Your task to perform on an android device: turn off data saver in the chrome app Image 0: 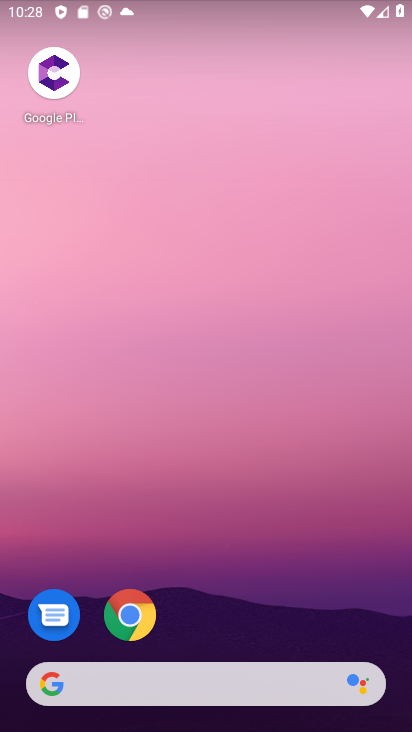
Step 0: click (131, 617)
Your task to perform on an android device: turn off data saver in the chrome app Image 1: 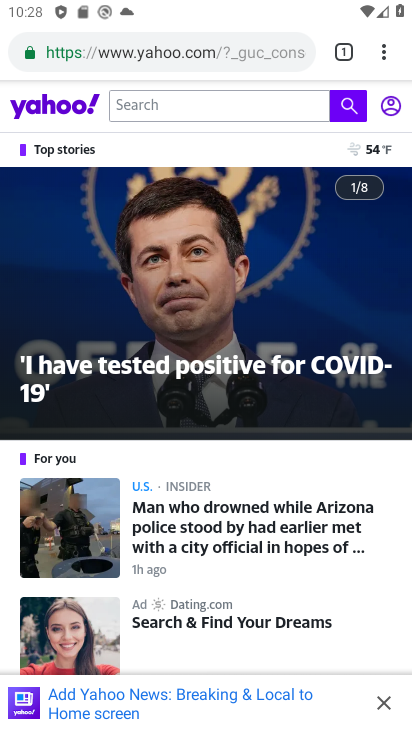
Step 1: drag from (376, 52) to (246, 648)
Your task to perform on an android device: turn off data saver in the chrome app Image 2: 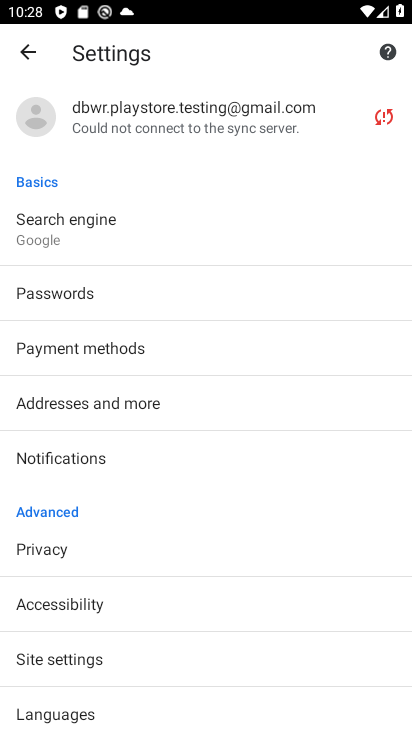
Step 2: drag from (86, 669) to (145, 335)
Your task to perform on an android device: turn off data saver in the chrome app Image 3: 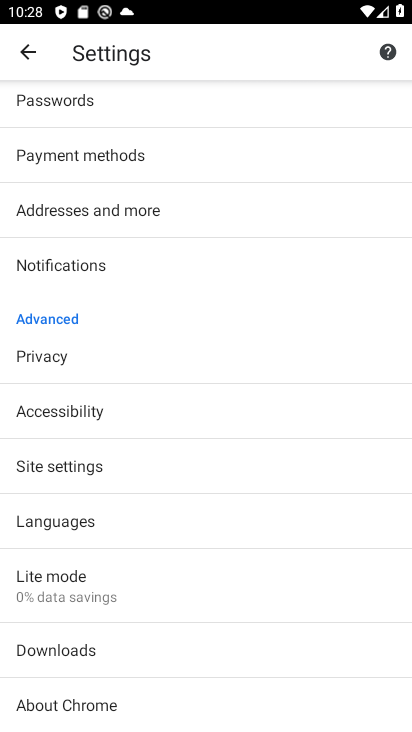
Step 3: click (108, 589)
Your task to perform on an android device: turn off data saver in the chrome app Image 4: 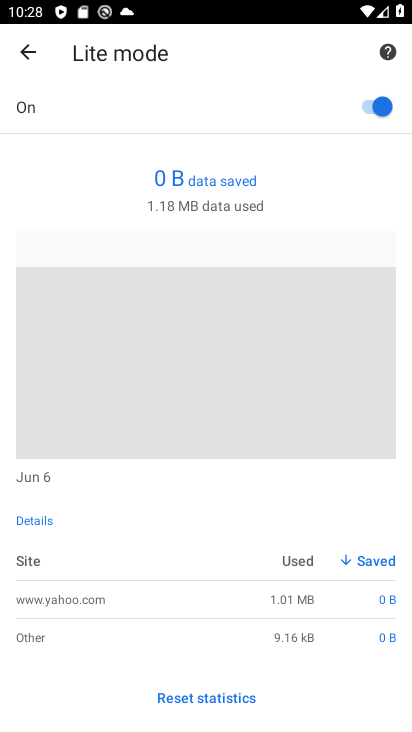
Step 4: click (372, 100)
Your task to perform on an android device: turn off data saver in the chrome app Image 5: 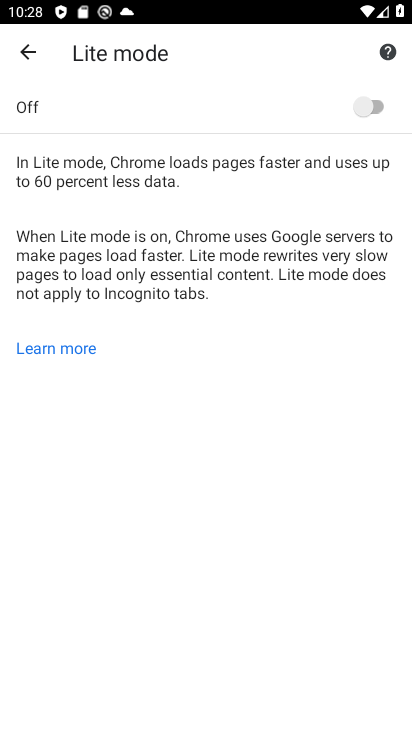
Step 5: task complete